Your task to perform on an android device: Go to ESPN.com Image 0: 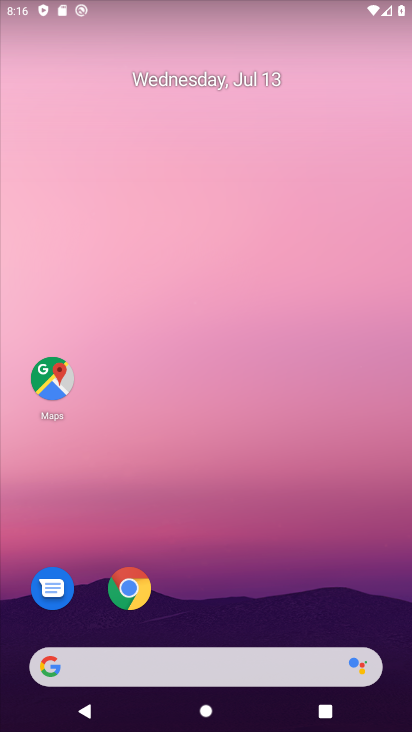
Step 0: drag from (237, 613) to (202, 141)
Your task to perform on an android device: Go to ESPN.com Image 1: 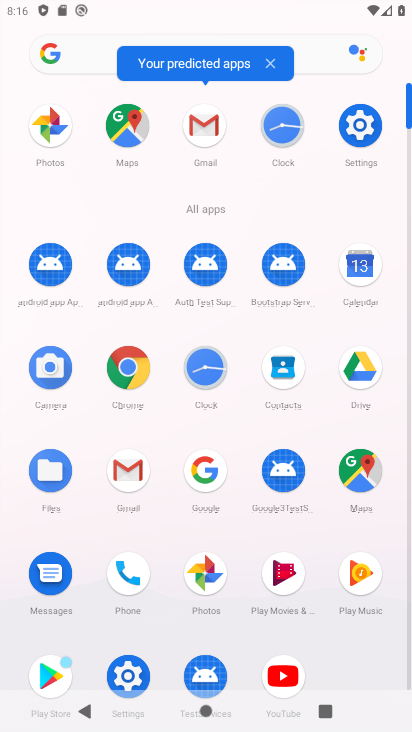
Step 1: click (118, 380)
Your task to perform on an android device: Go to ESPN.com Image 2: 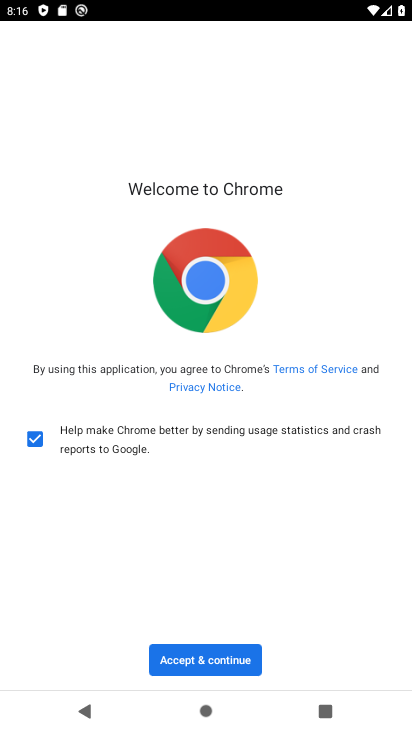
Step 2: click (219, 660)
Your task to perform on an android device: Go to ESPN.com Image 3: 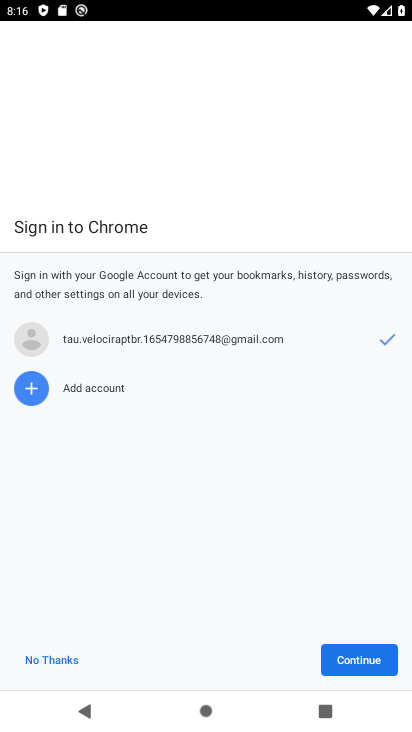
Step 3: click (353, 663)
Your task to perform on an android device: Go to ESPN.com Image 4: 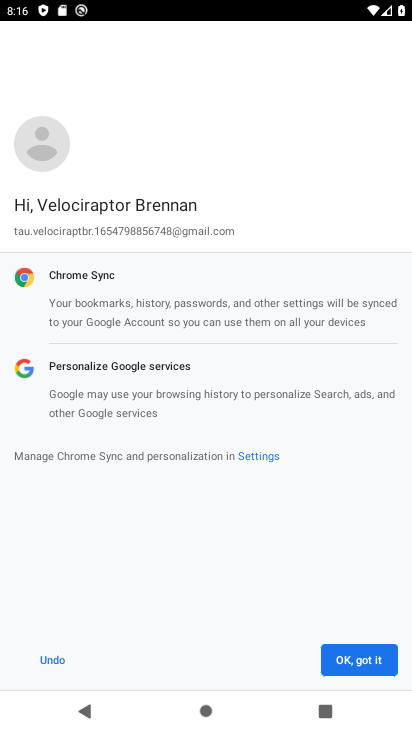
Step 4: click (353, 663)
Your task to perform on an android device: Go to ESPN.com Image 5: 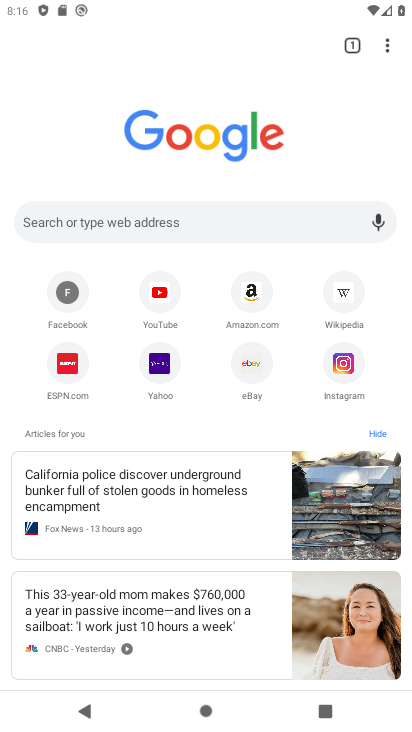
Step 5: click (68, 367)
Your task to perform on an android device: Go to ESPN.com Image 6: 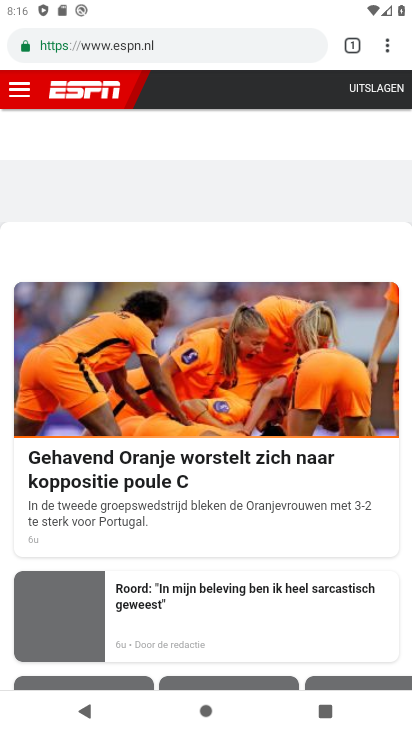
Step 6: task complete